Your task to perform on an android device: move a message to another label in the gmail app Image 0: 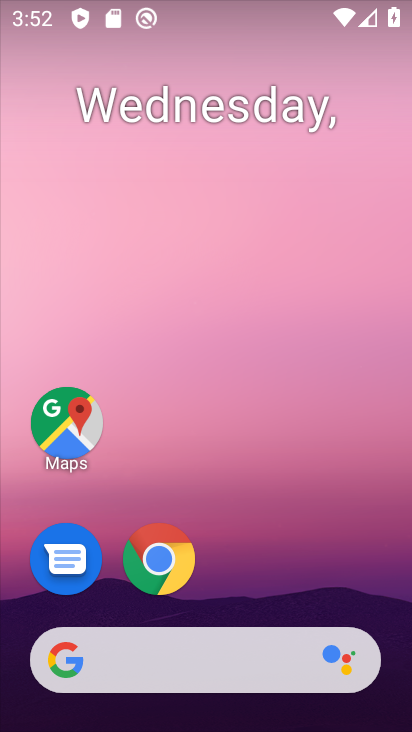
Step 0: drag from (200, 519) to (296, 11)
Your task to perform on an android device: move a message to another label in the gmail app Image 1: 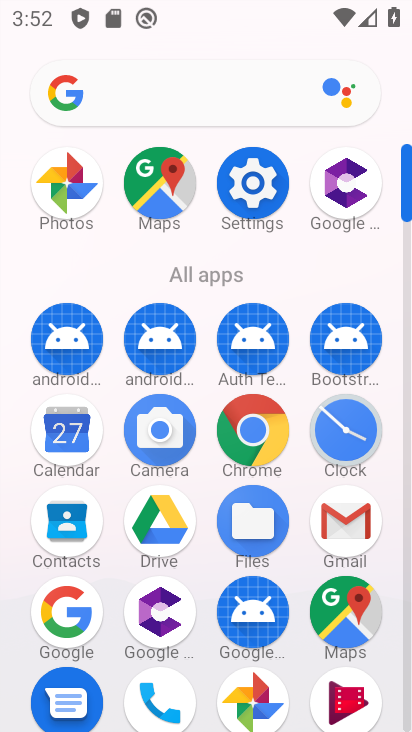
Step 1: click (334, 523)
Your task to perform on an android device: move a message to another label in the gmail app Image 2: 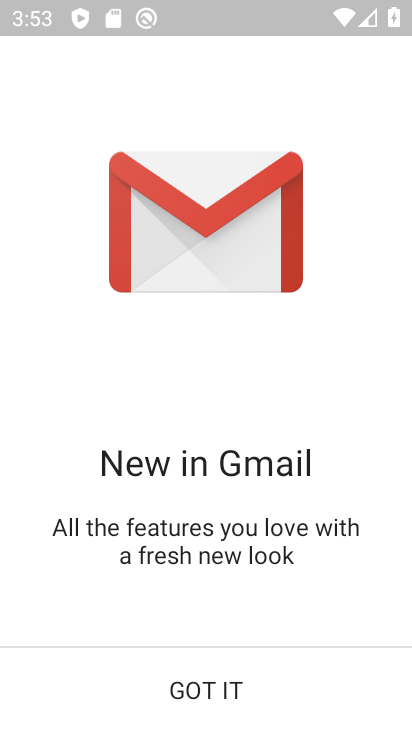
Step 2: click (210, 679)
Your task to perform on an android device: move a message to another label in the gmail app Image 3: 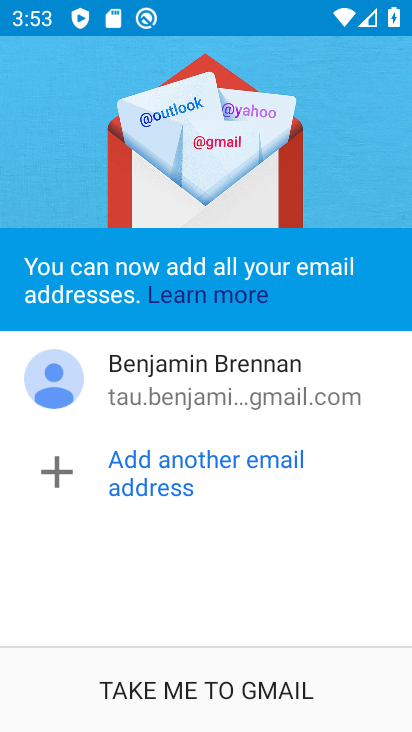
Step 3: click (209, 680)
Your task to perform on an android device: move a message to another label in the gmail app Image 4: 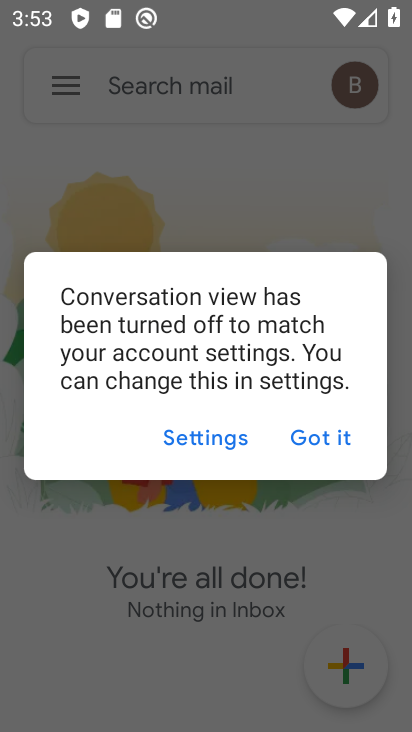
Step 4: click (305, 439)
Your task to perform on an android device: move a message to another label in the gmail app Image 5: 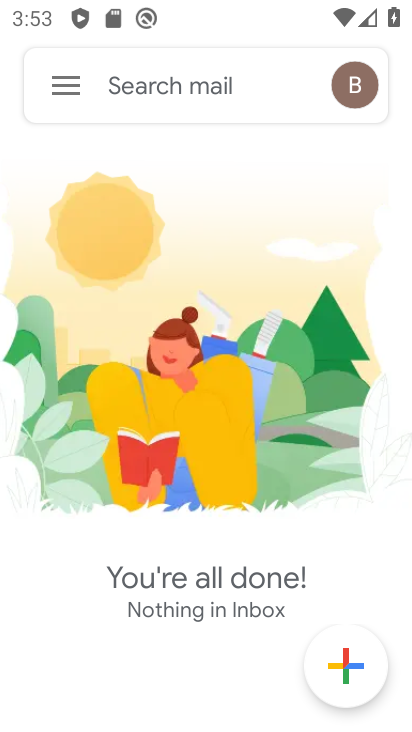
Step 5: click (68, 92)
Your task to perform on an android device: move a message to another label in the gmail app Image 6: 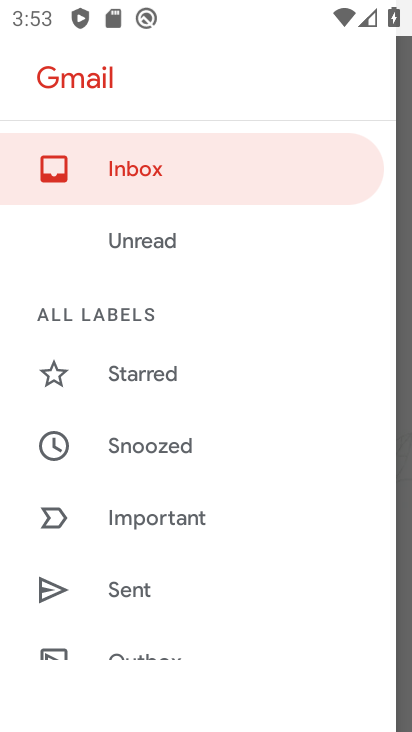
Step 6: drag from (150, 625) to (223, 144)
Your task to perform on an android device: move a message to another label in the gmail app Image 7: 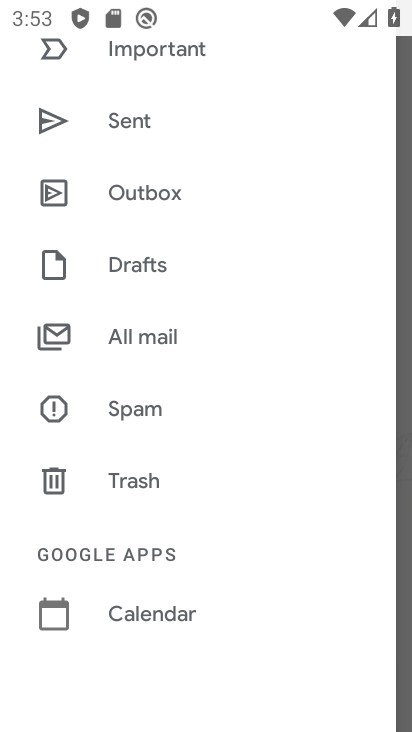
Step 7: click (139, 342)
Your task to perform on an android device: move a message to another label in the gmail app Image 8: 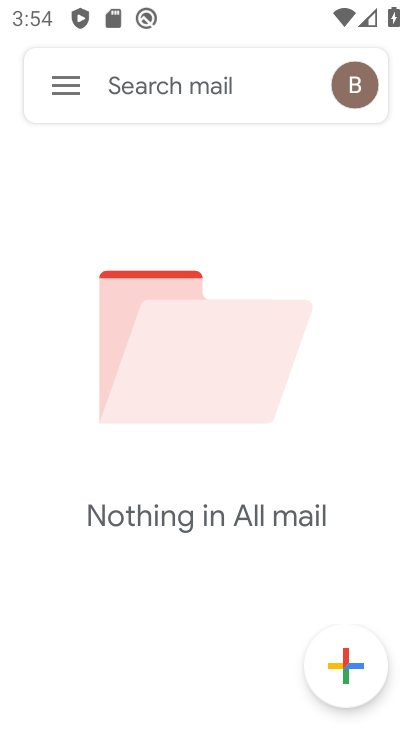
Step 8: task complete